Your task to perform on an android device: When is my next meeting? Image 0: 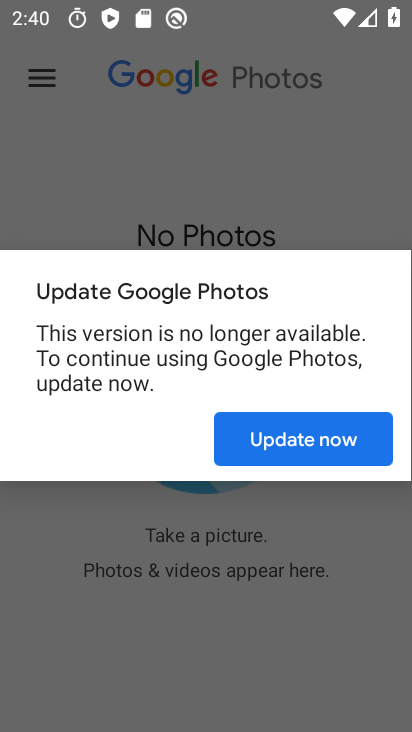
Step 0: press home button
Your task to perform on an android device: When is my next meeting? Image 1: 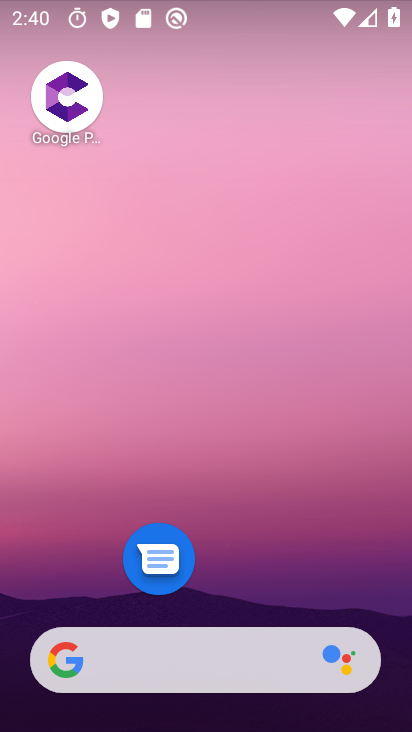
Step 1: drag from (279, 538) to (269, 8)
Your task to perform on an android device: When is my next meeting? Image 2: 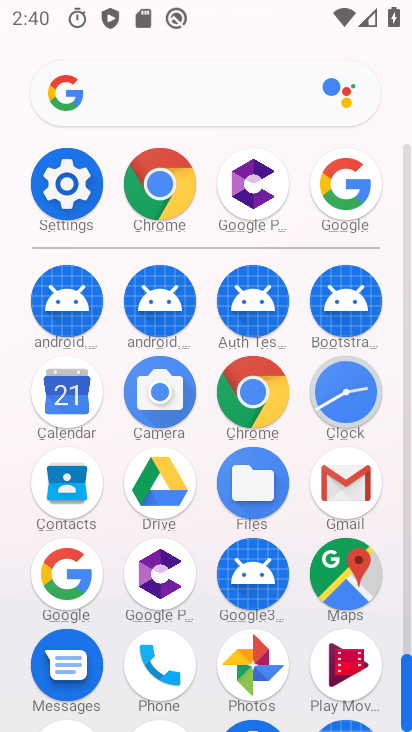
Step 2: click (69, 398)
Your task to perform on an android device: When is my next meeting? Image 3: 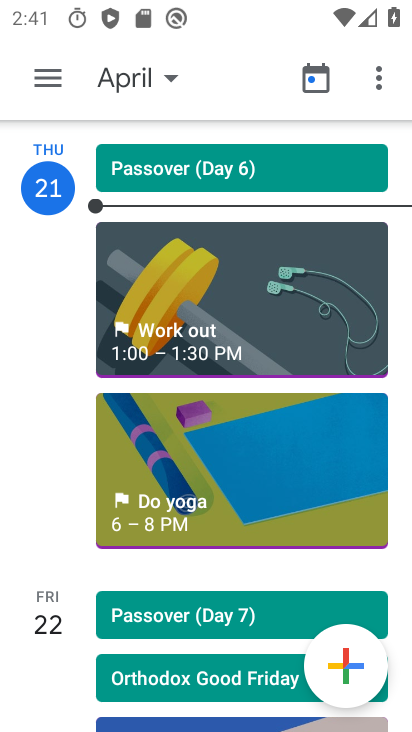
Step 3: click (159, 70)
Your task to perform on an android device: When is my next meeting? Image 4: 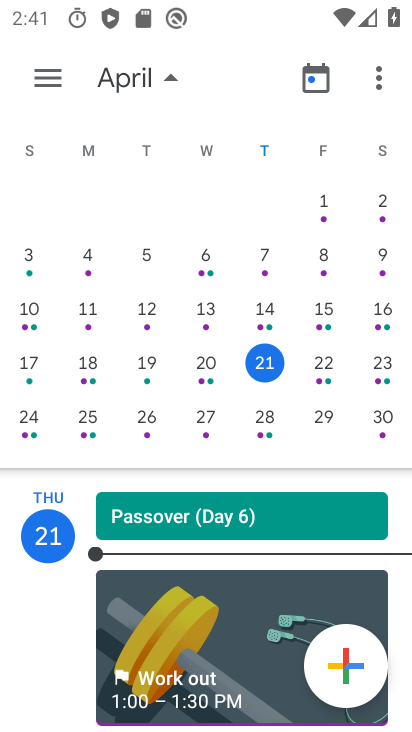
Step 4: drag from (354, 440) to (194, 449)
Your task to perform on an android device: When is my next meeting? Image 5: 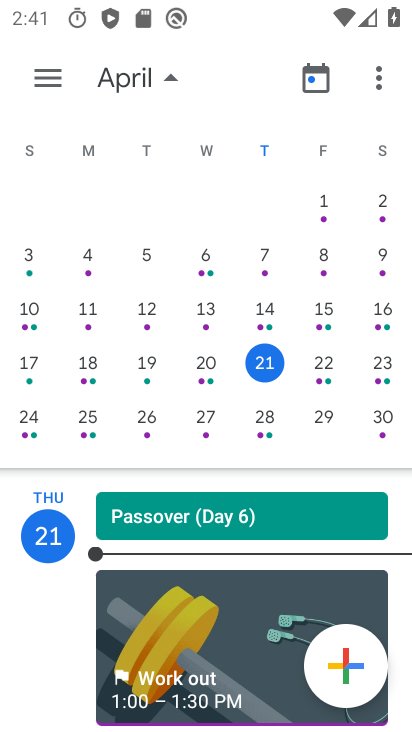
Step 5: click (387, 364)
Your task to perform on an android device: When is my next meeting? Image 6: 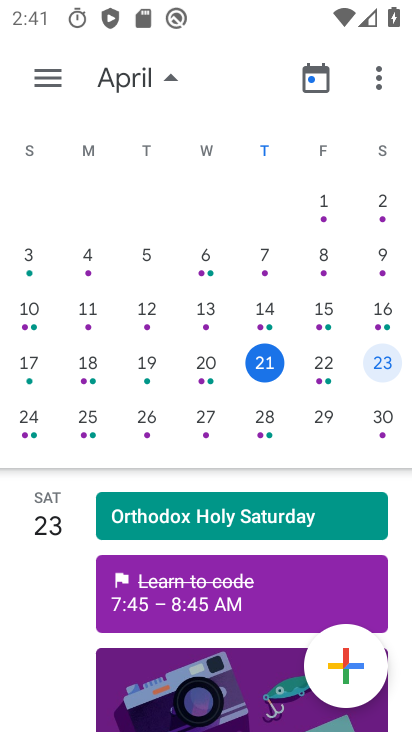
Step 6: task complete